Your task to perform on an android device: turn off improve location accuracy Image 0: 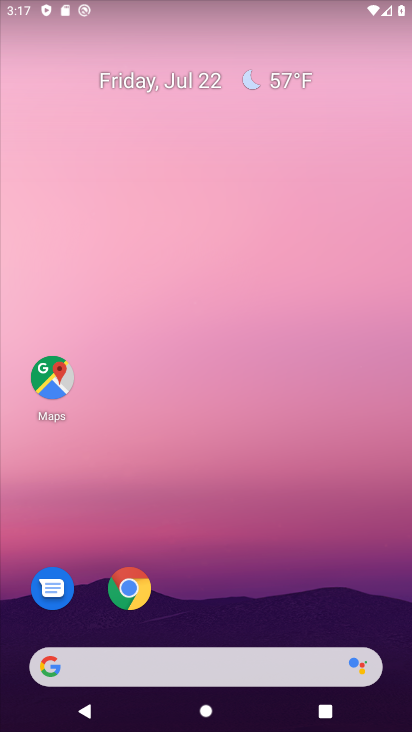
Step 0: drag from (229, 649) to (202, 124)
Your task to perform on an android device: turn off improve location accuracy Image 1: 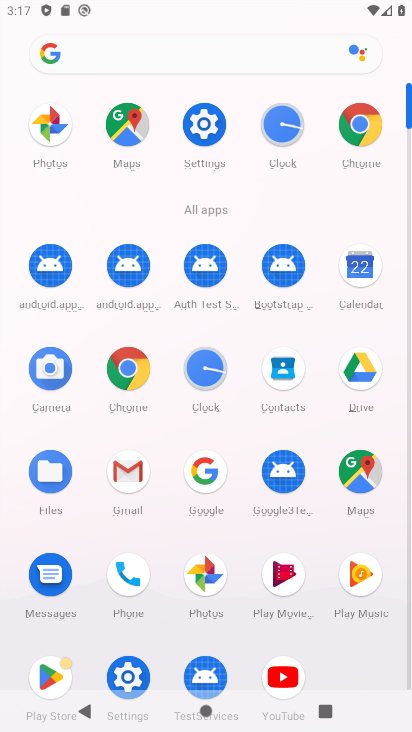
Step 1: click (132, 655)
Your task to perform on an android device: turn off improve location accuracy Image 2: 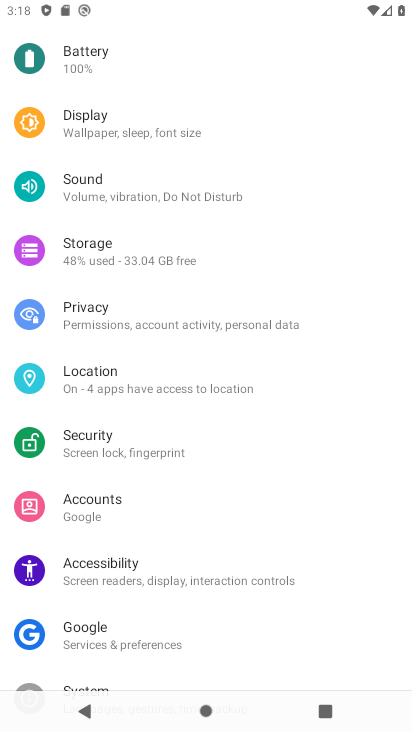
Step 2: click (114, 388)
Your task to perform on an android device: turn off improve location accuracy Image 3: 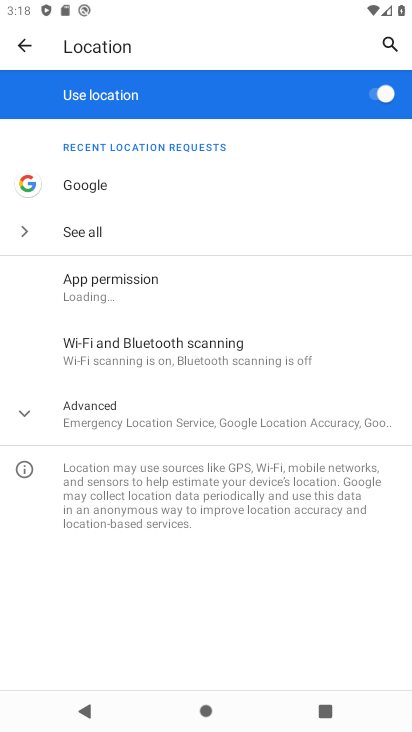
Step 3: click (153, 401)
Your task to perform on an android device: turn off improve location accuracy Image 4: 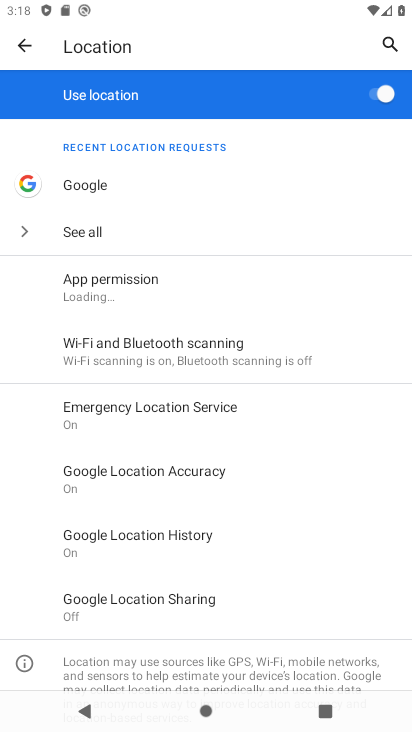
Step 4: click (195, 471)
Your task to perform on an android device: turn off improve location accuracy Image 5: 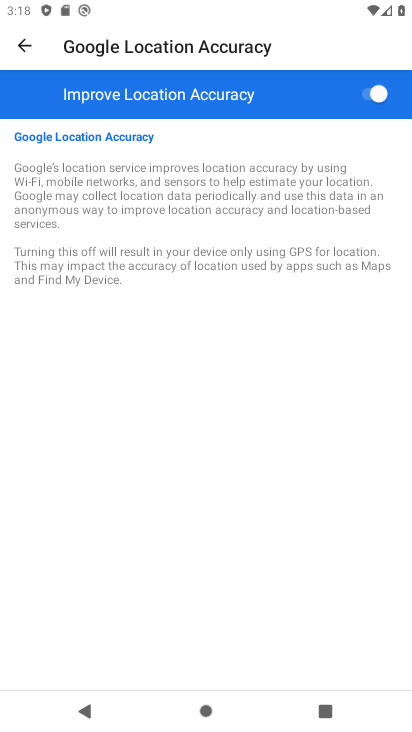
Step 5: click (373, 99)
Your task to perform on an android device: turn off improve location accuracy Image 6: 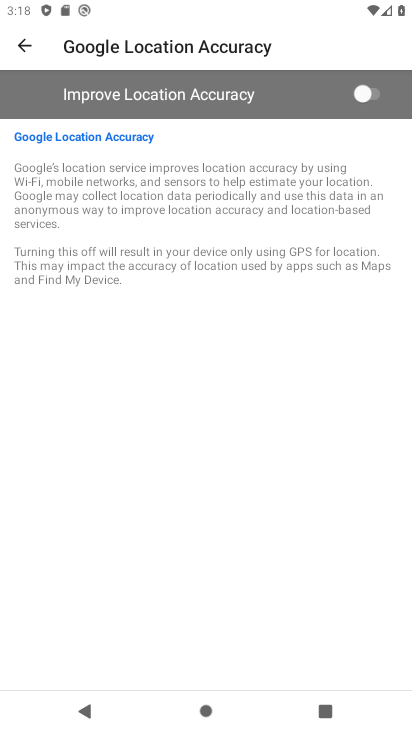
Step 6: task complete